Your task to perform on an android device: Open settings Image 0: 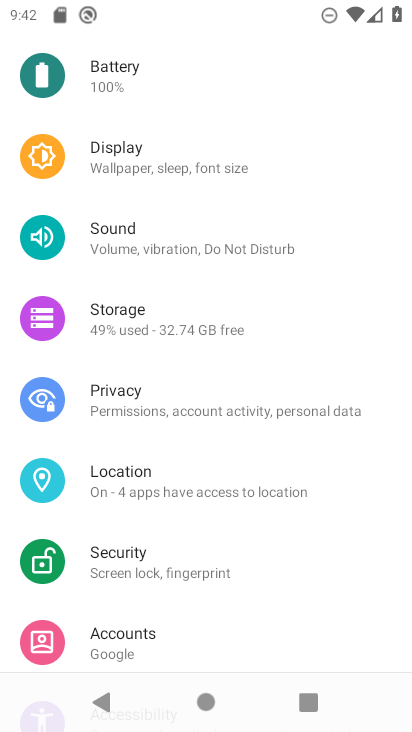
Step 0: drag from (287, 645) to (293, 265)
Your task to perform on an android device: Open settings Image 1: 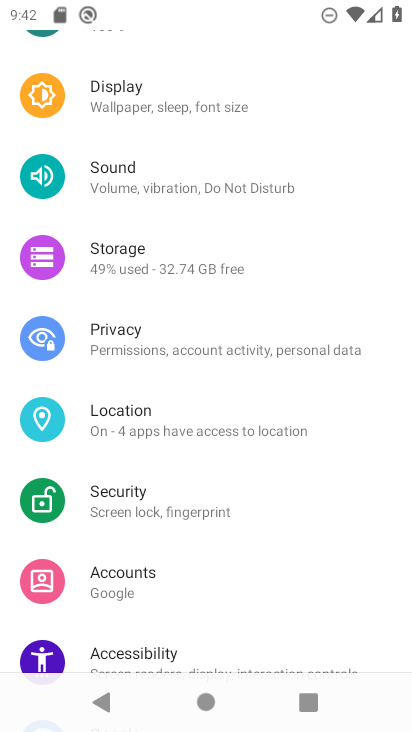
Step 1: task complete